Your task to perform on an android device: turn notification dots on Image 0: 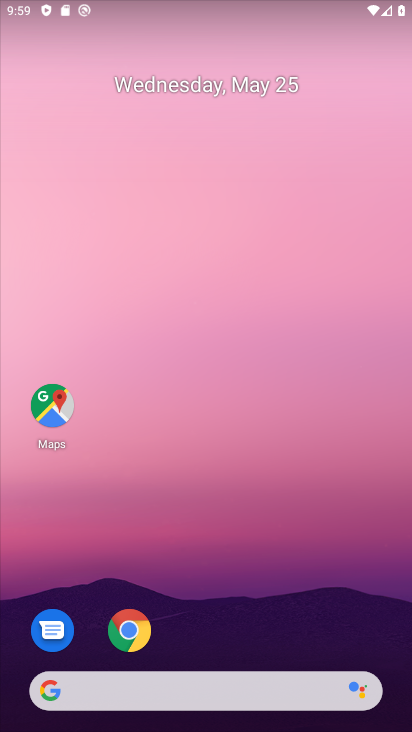
Step 0: drag from (388, 641) to (362, 145)
Your task to perform on an android device: turn notification dots on Image 1: 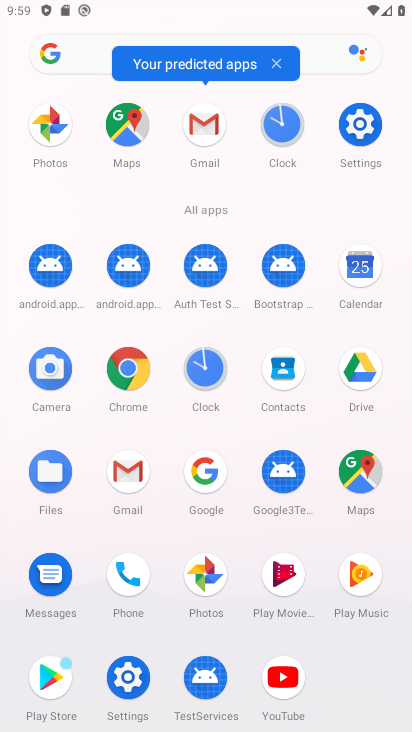
Step 1: click (361, 132)
Your task to perform on an android device: turn notification dots on Image 2: 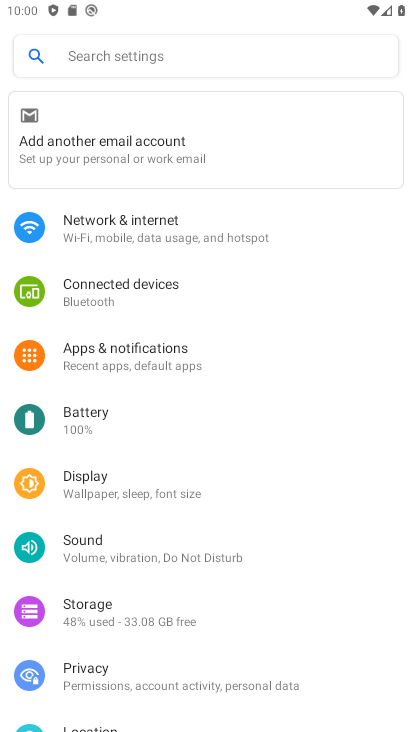
Step 2: drag from (314, 594) to (315, 291)
Your task to perform on an android device: turn notification dots on Image 3: 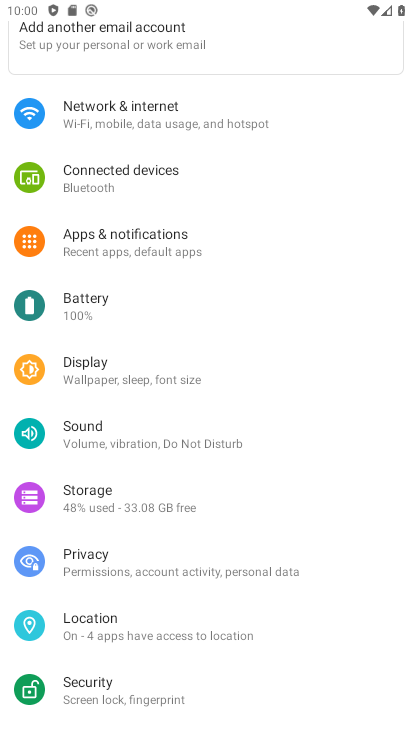
Step 3: click (138, 245)
Your task to perform on an android device: turn notification dots on Image 4: 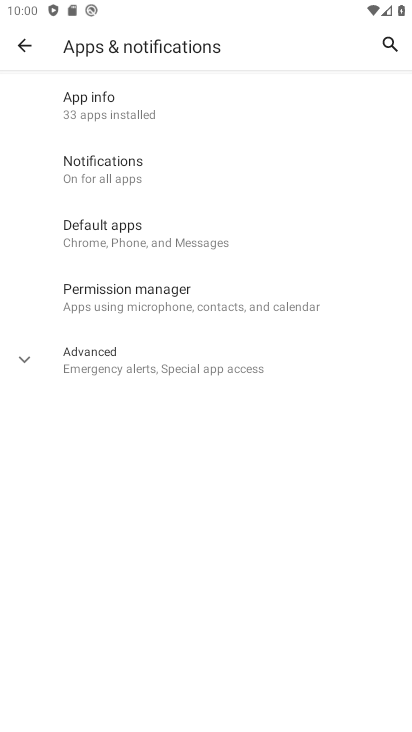
Step 4: click (121, 169)
Your task to perform on an android device: turn notification dots on Image 5: 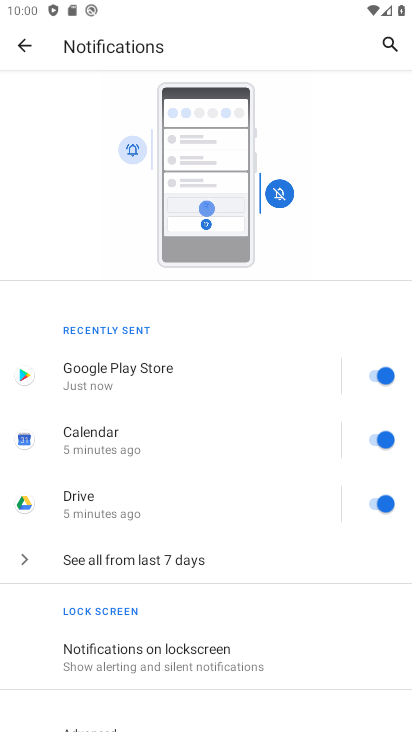
Step 5: drag from (248, 641) to (252, 250)
Your task to perform on an android device: turn notification dots on Image 6: 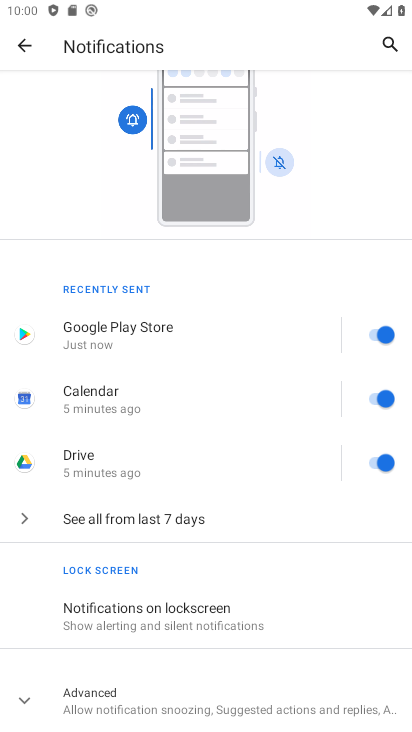
Step 6: click (22, 706)
Your task to perform on an android device: turn notification dots on Image 7: 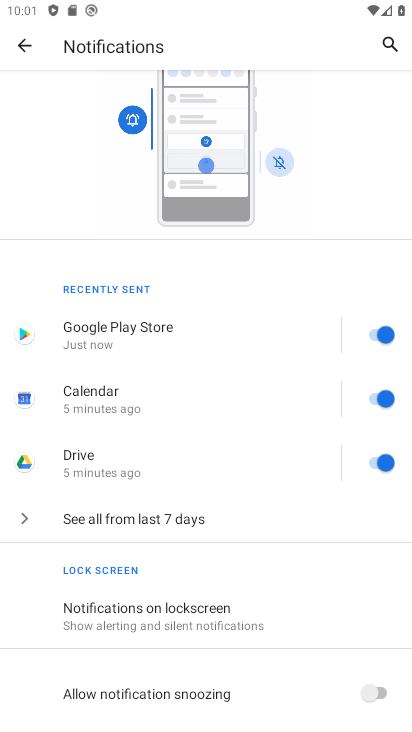
Step 7: task complete